Your task to perform on an android device: change timer sound Image 0: 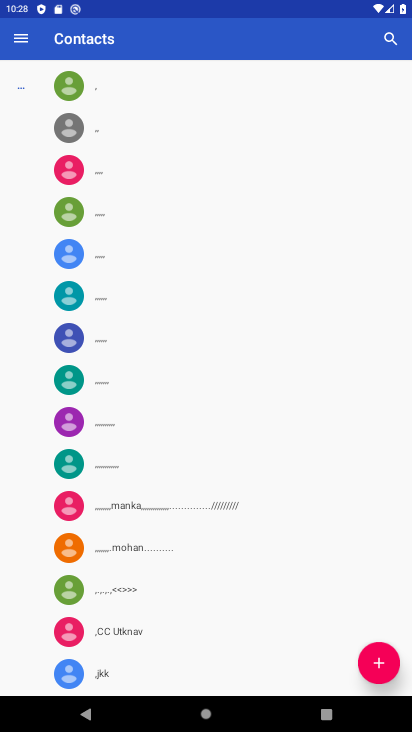
Step 0: press home button
Your task to perform on an android device: change timer sound Image 1: 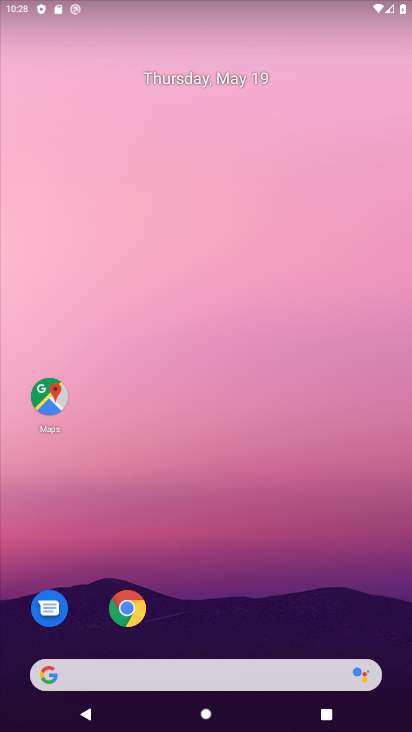
Step 1: drag from (373, 627) to (331, 361)
Your task to perform on an android device: change timer sound Image 2: 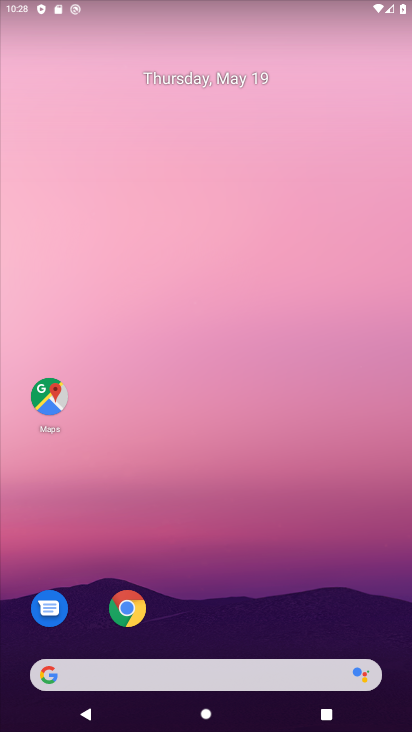
Step 2: drag from (394, 702) to (329, 234)
Your task to perform on an android device: change timer sound Image 3: 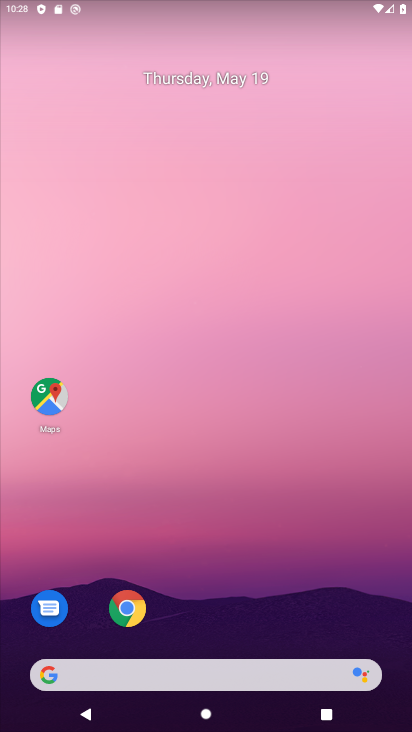
Step 3: drag from (400, 703) to (341, 312)
Your task to perform on an android device: change timer sound Image 4: 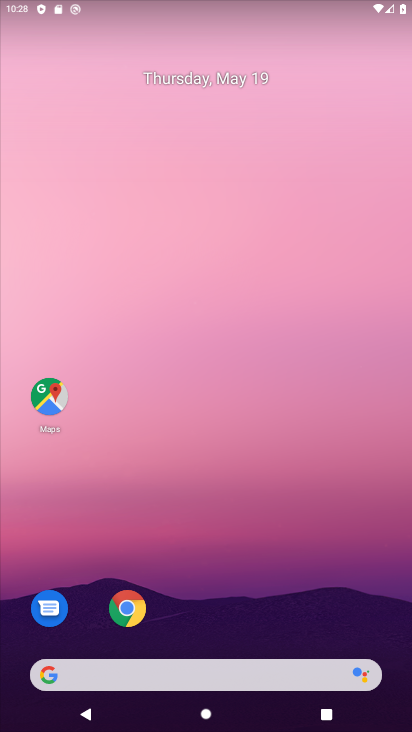
Step 4: drag from (395, 710) to (372, 188)
Your task to perform on an android device: change timer sound Image 5: 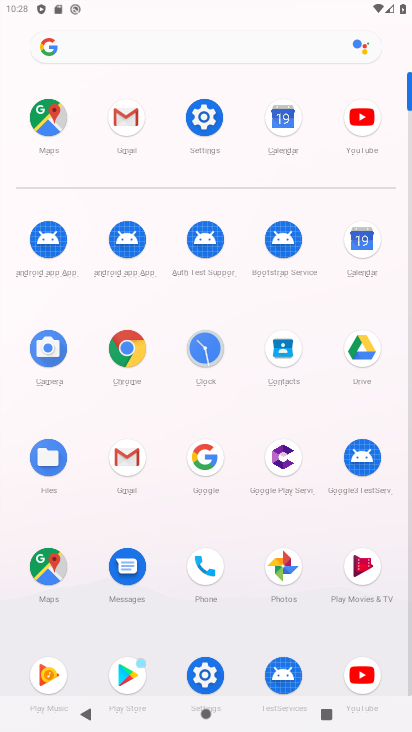
Step 5: click (214, 341)
Your task to perform on an android device: change timer sound Image 6: 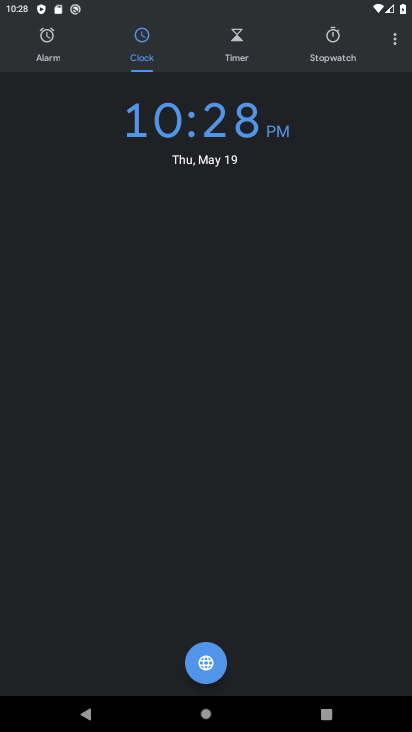
Step 6: click (332, 27)
Your task to perform on an android device: change timer sound Image 7: 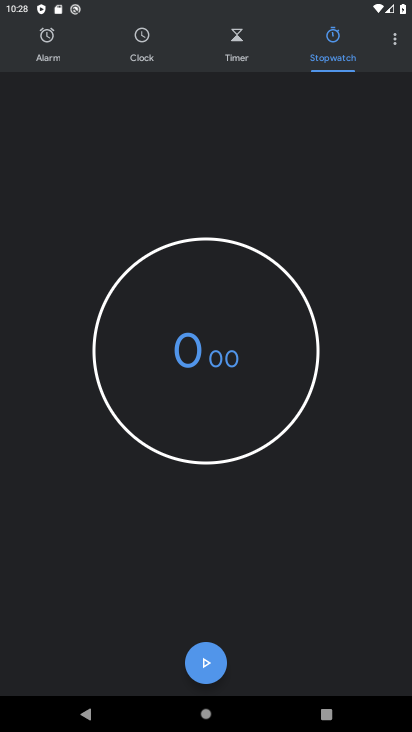
Step 7: click (392, 47)
Your task to perform on an android device: change timer sound Image 8: 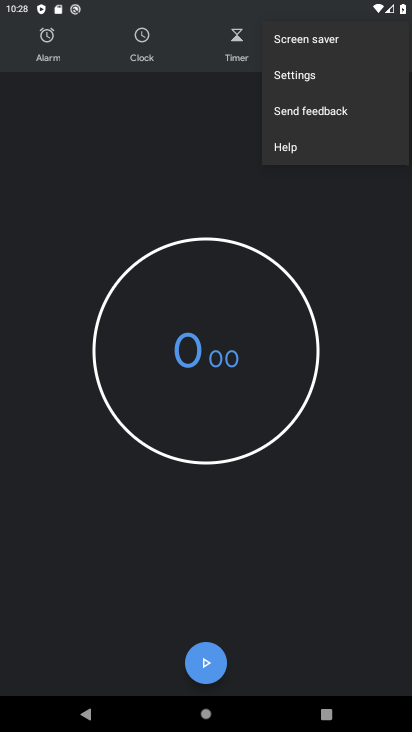
Step 8: click (310, 82)
Your task to perform on an android device: change timer sound Image 9: 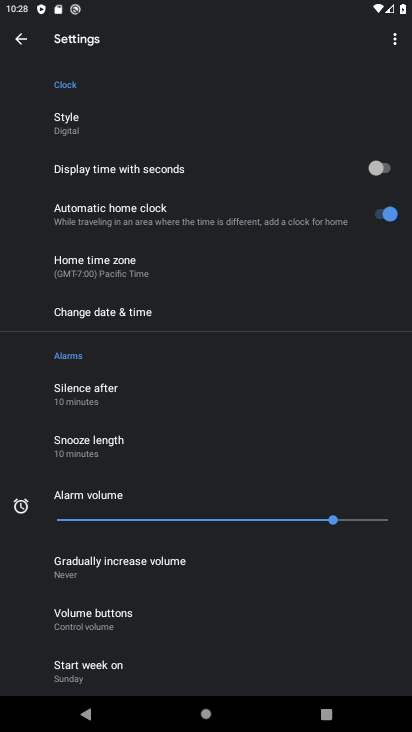
Step 9: drag from (181, 654) to (174, 321)
Your task to perform on an android device: change timer sound Image 10: 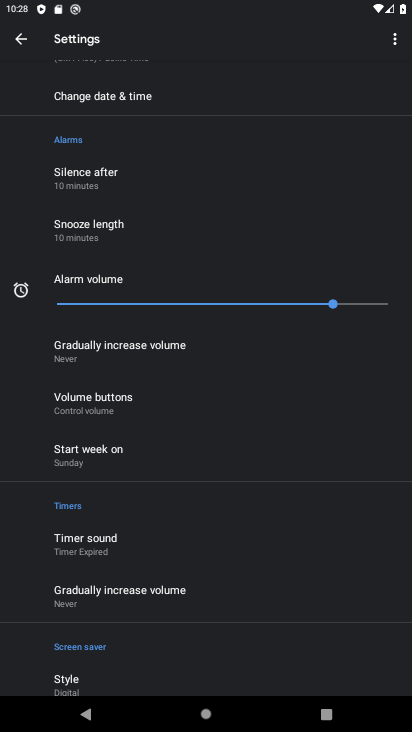
Step 10: drag from (175, 652) to (165, 384)
Your task to perform on an android device: change timer sound Image 11: 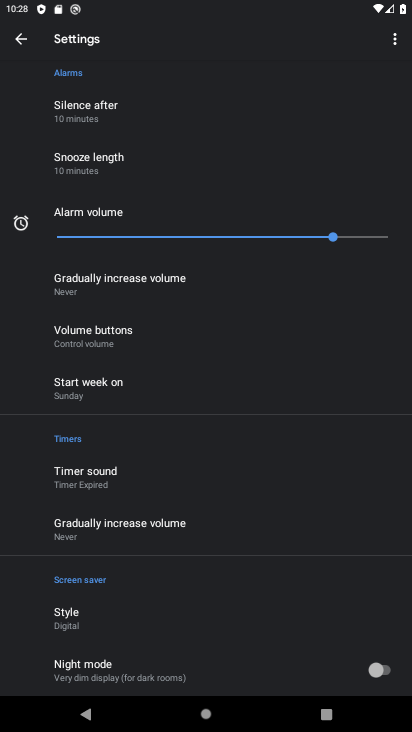
Step 11: click (78, 480)
Your task to perform on an android device: change timer sound Image 12: 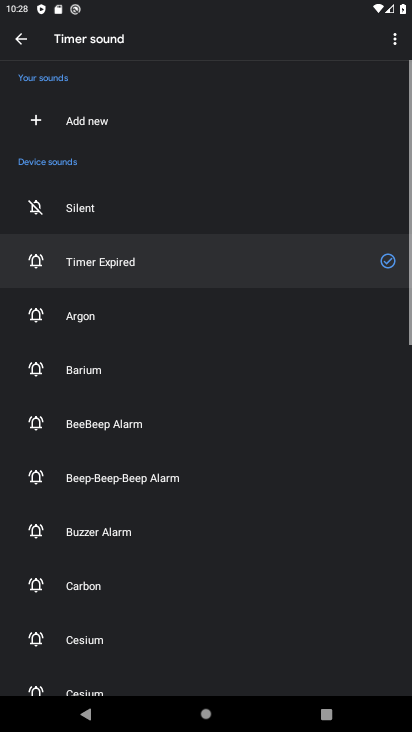
Step 12: click (83, 370)
Your task to perform on an android device: change timer sound Image 13: 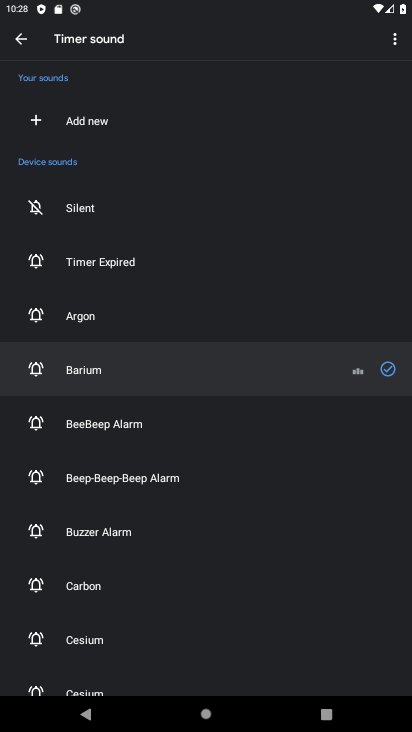
Step 13: task complete